Your task to perform on an android device: find which apps use the phone's location Image 0: 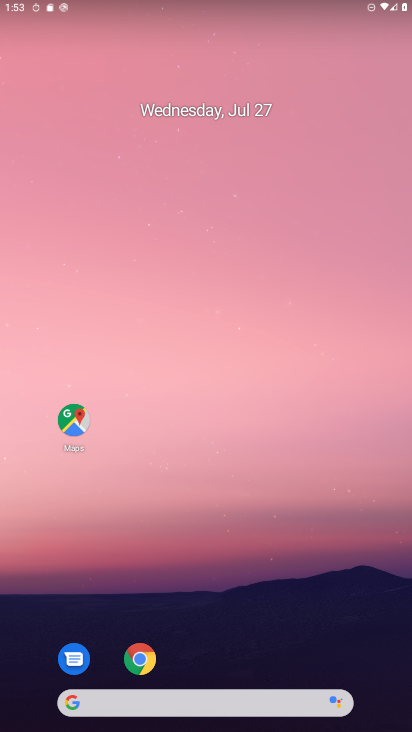
Step 0: drag from (324, 643) to (266, 83)
Your task to perform on an android device: find which apps use the phone's location Image 1: 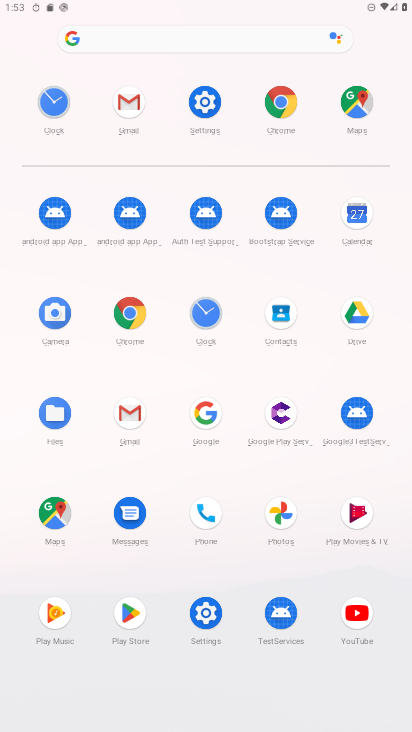
Step 1: click (202, 104)
Your task to perform on an android device: find which apps use the phone's location Image 2: 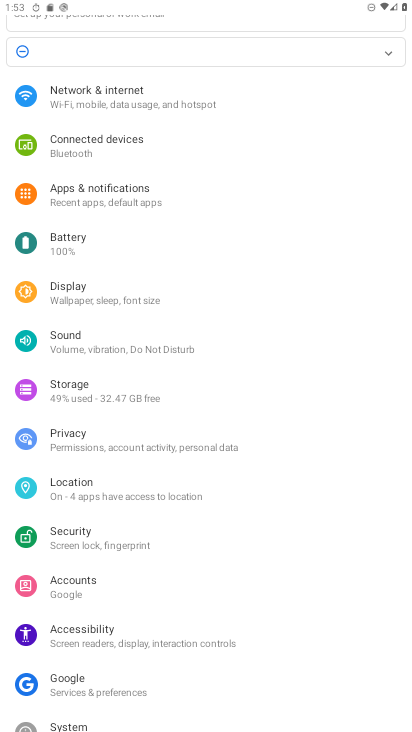
Step 2: click (76, 487)
Your task to perform on an android device: find which apps use the phone's location Image 3: 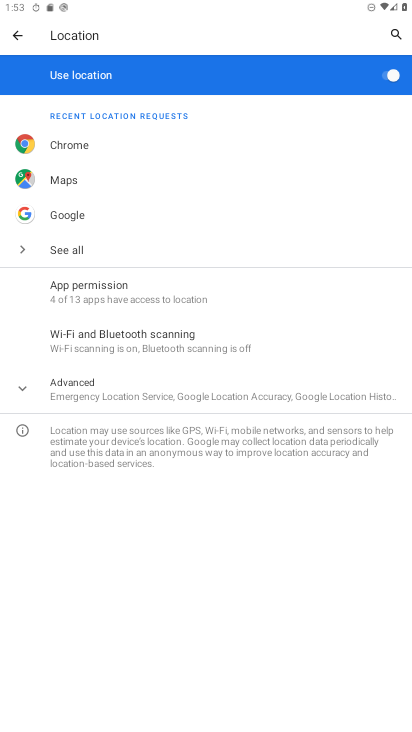
Step 3: click (95, 294)
Your task to perform on an android device: find which apps use the phone's location Image 4: 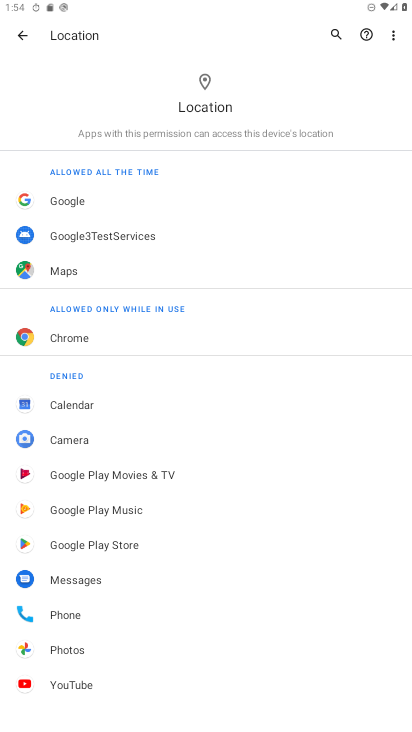
Step 4: task complete